Your task to perform on an android device: choose inbox layout in the gmail app Image 0: 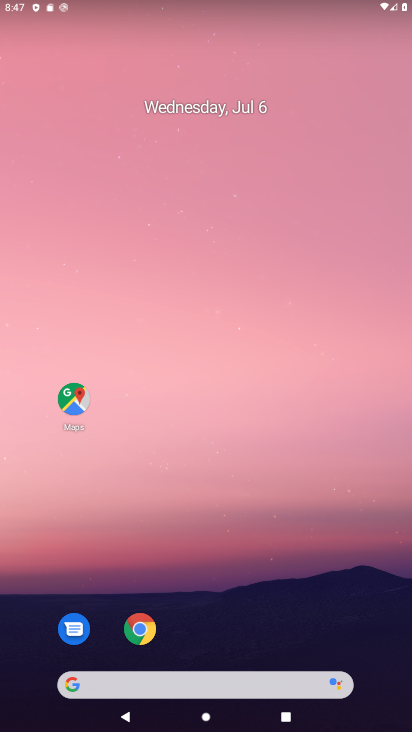
Step 0: drag from (245, 609) to (294, 110)
Your task to perform on an android device: choose inbox layout in the gmail app Image 1: 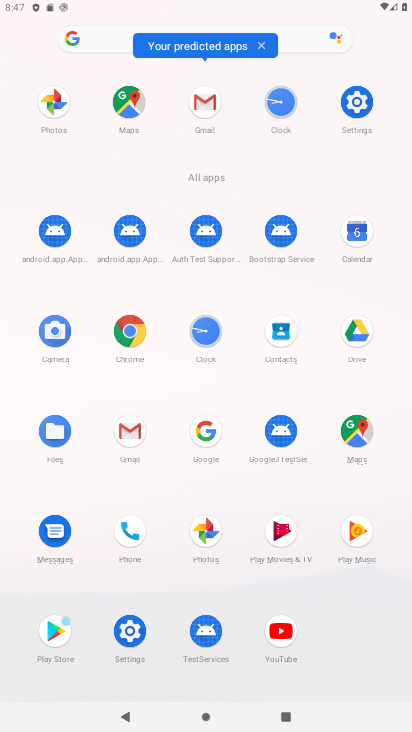
Step 1: click (195, 103)
Your task to perform on an android device: choose inbox layout in the gmail app Image 2: 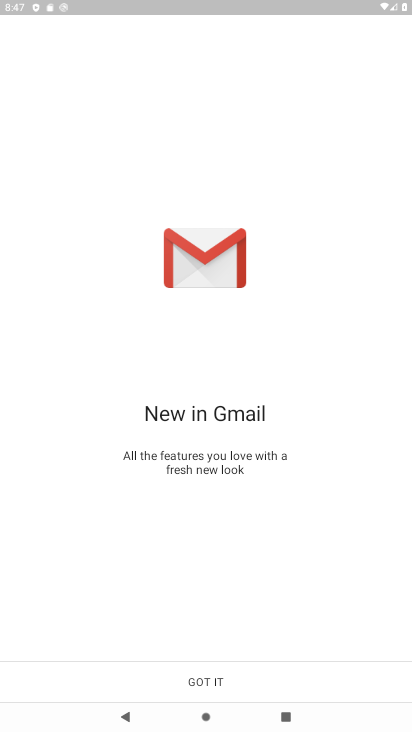
Step 2: click (197, 674)
Your task to perform on an android device: choose inbox layout in the gmail app Image 3: 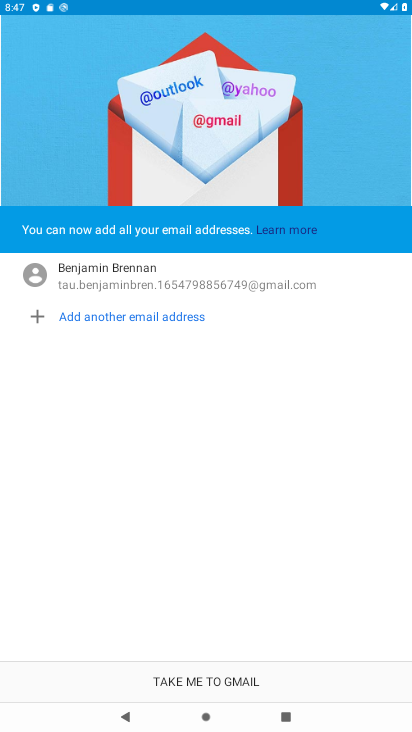
Step 3: click (198, 674)
Your task to perform on an android device: choose inbox layout in the gmail app Image 4: 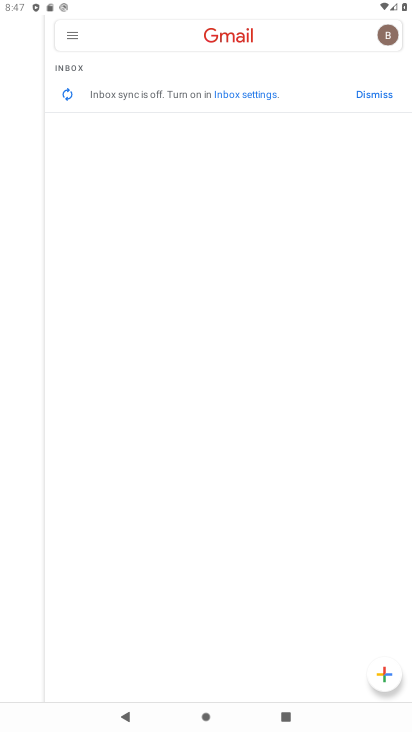
Step 4: click (75, 40)
Your task to perform on an android device: choose inbox layout in the gmail app Image 5: 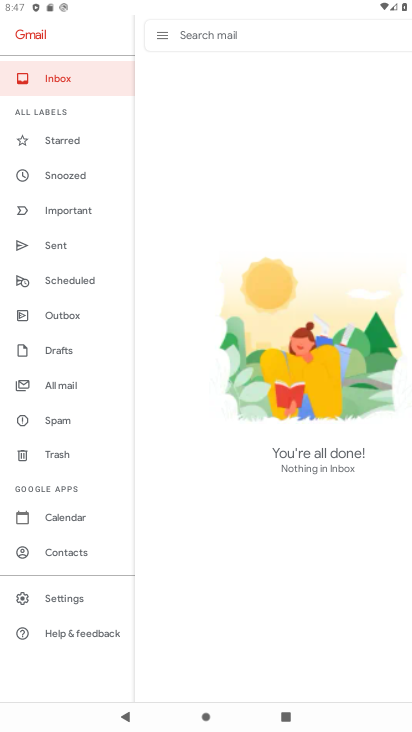
Step 5: click (59, 593)
Your task to perform on an android device: choose inbox layout in the gmail app Image 6: 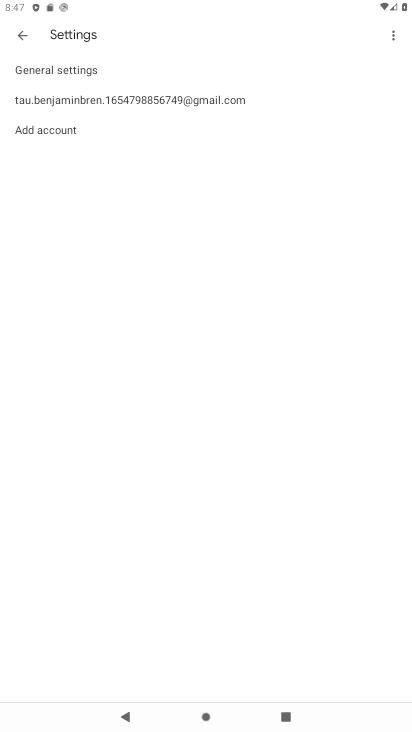
Step 6: click (84, 102)
Your task to perform on an android device: choose inbox layout in the gmail app Image 7: 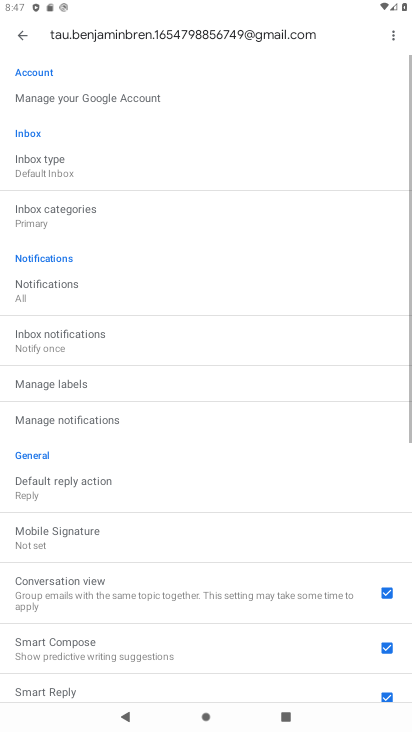
Step 7: click (77, 165)
Your task to perform on an android device: choose inbox layout in the gmail app Image 8: 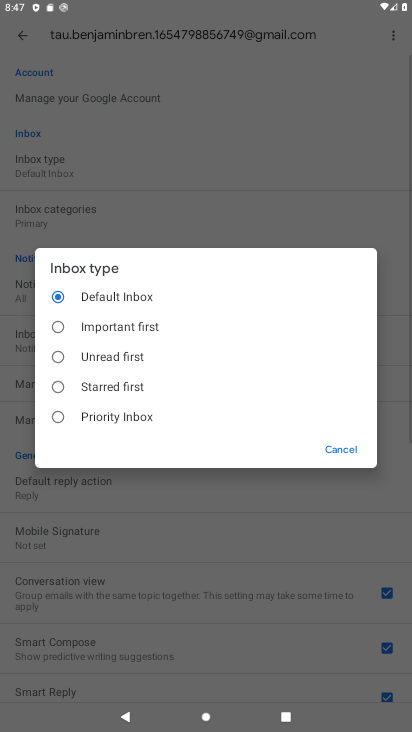
Step 8: click (94, 328)
Your task to perform on an android device: choose inbox layout in the gmail app Image 9: 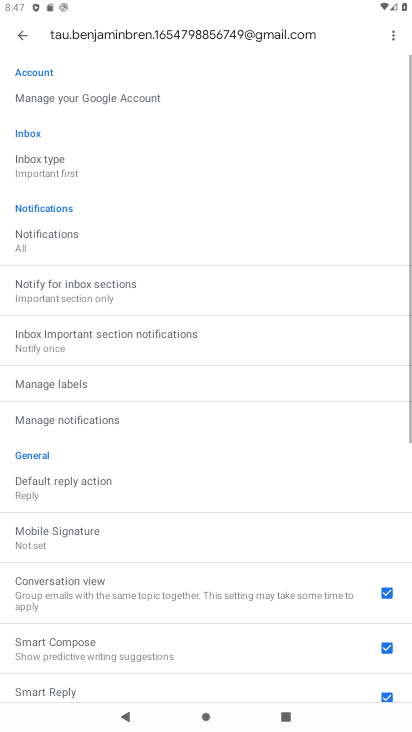
Step 9: task complete